Your task to perform on an android device: What is the news today? Image 0: 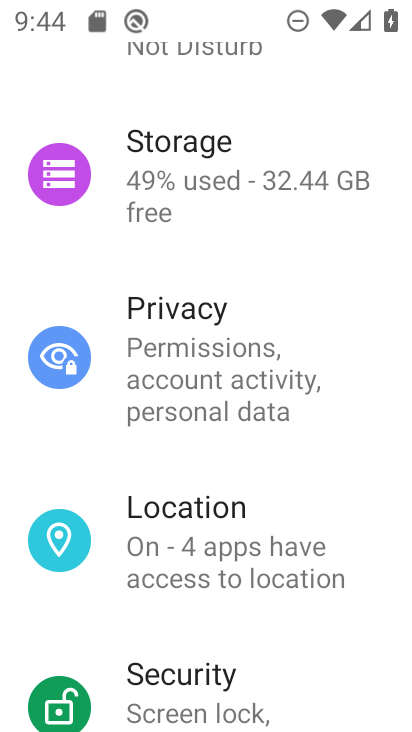
Step 0: press home button
Your task to perform on an android device: What is the news today? Image 1: 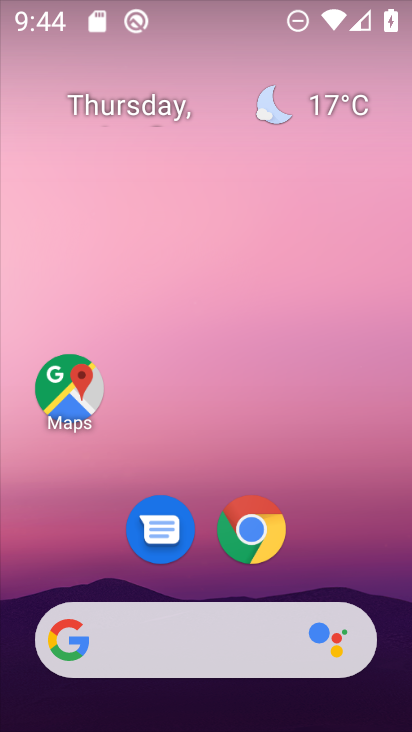
Step 1: task complete